Your task to perform on an android device: create a new album in the google photos Image 0: 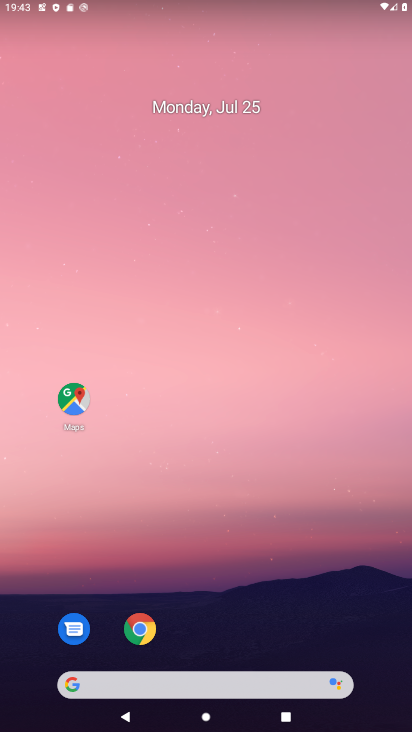
Step 0: drag from (66, 575) to (124, 294)
Your task to perform on an android device: create a new album in the google photos Image 1: 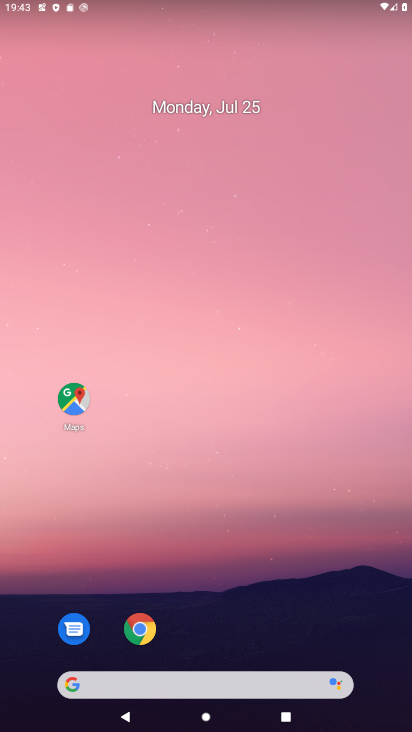
Step 1: drag from (52, 703) to (209, 219)
Your task to perform on an android device: create a new album in the google photos Image 2: 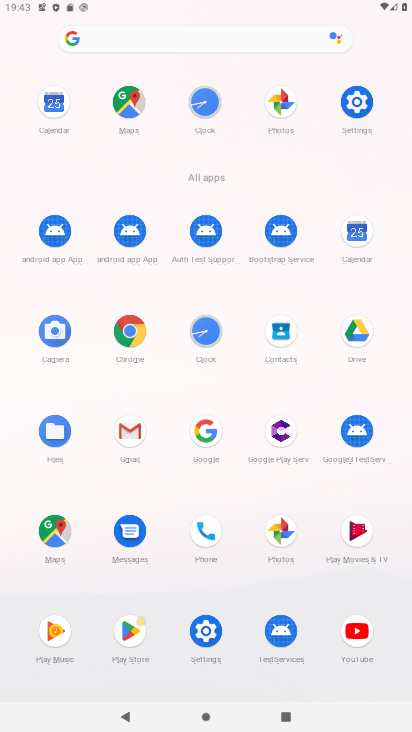
Step 2: click (262, 537)
Your task to perform on an android device: create a new album in the google photos Image 3: 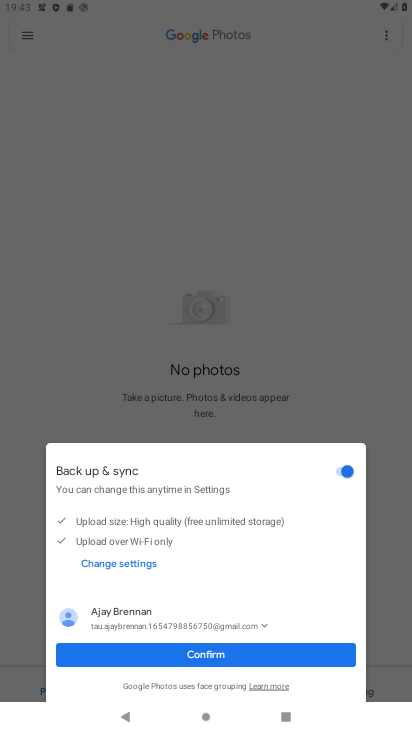
Step 3: click (189, 639)
Your task to perform on an android device: create a new album in the google photos Image 4: 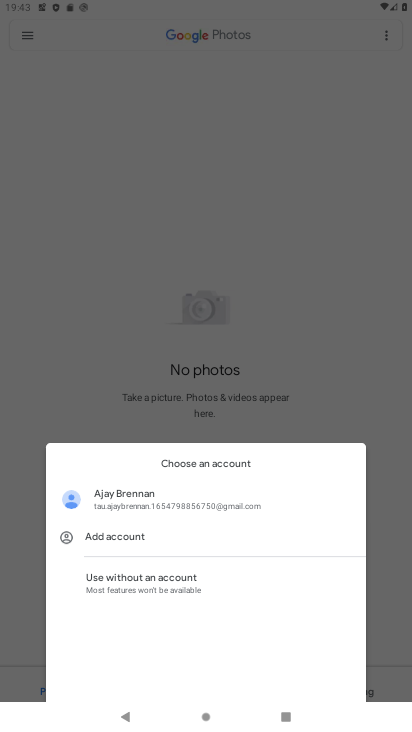
Step 4: click (190, 644)
Your task to perform on an android device: create a new album in the google photos Image 5: 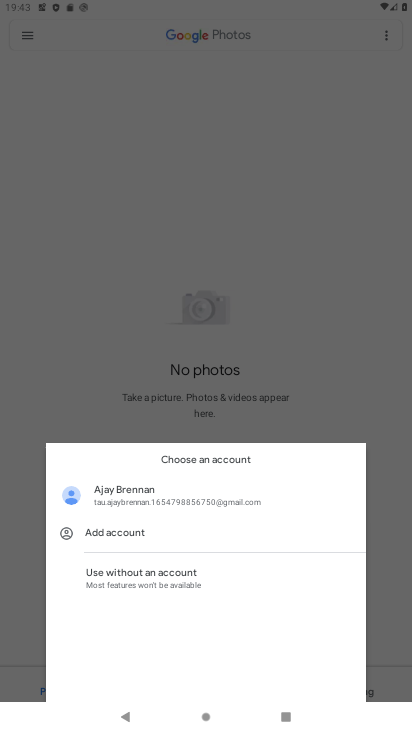
Step 5: click (386, 528)
Your task to perform on an android device: create a new album in the google photos Image 6: 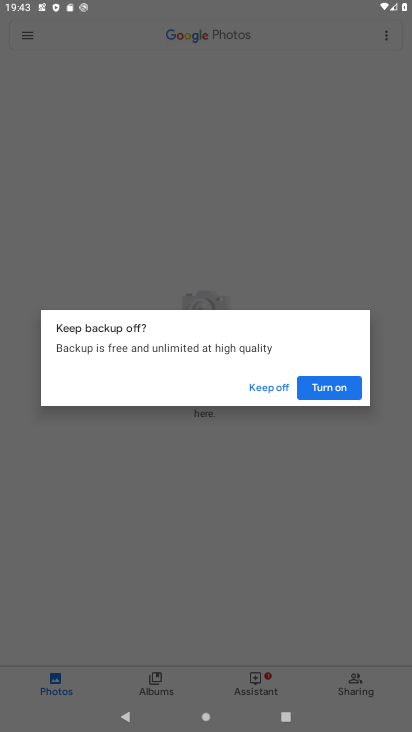
Step 6: click (266, 387)
Your task to perform on an android device: create a new album in the google photos Image 7: 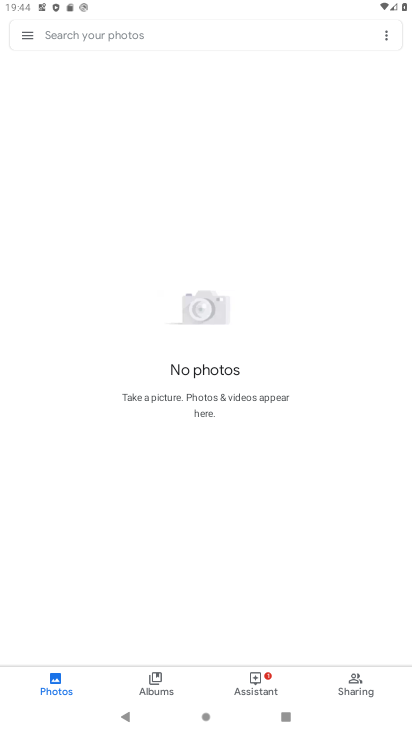
Step 7: task complete